Your task to perform on an android device: Go to Amazon Image 0: 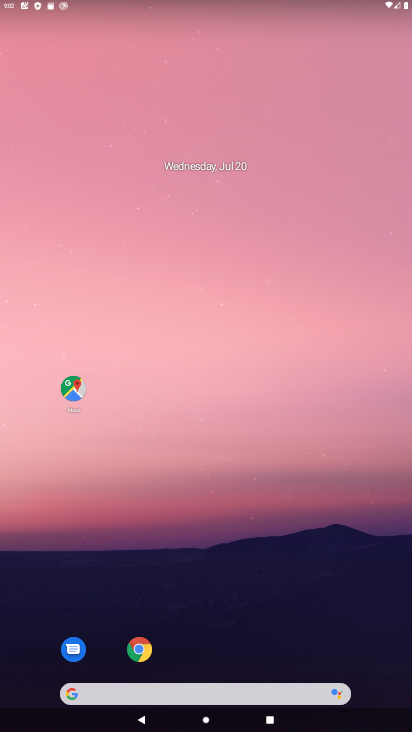
Step 0: drag from (287, 641) to (239, 266)
Your task to perform on an android device: Go to Amazon Image 1: 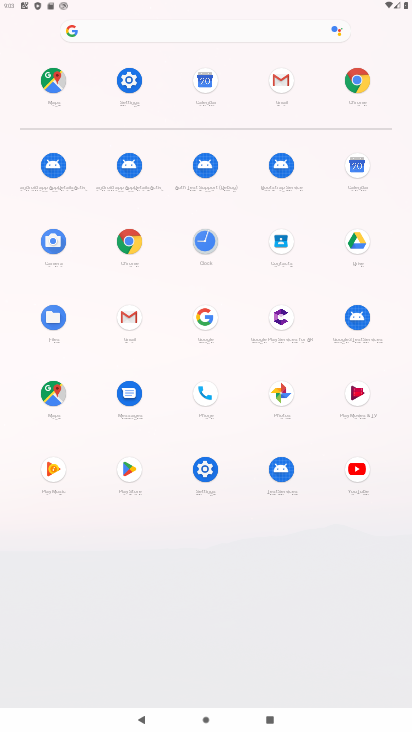
Step 1: click (344, 78)
Your task to perform on an android device: Go to Amazon Image 2: 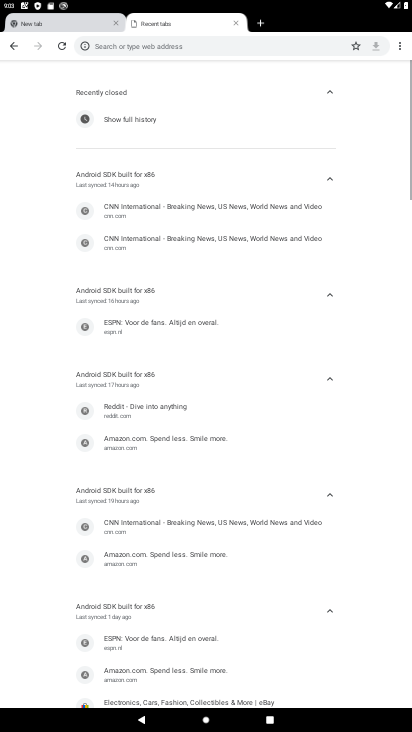
Step 2: click (263, 22)
Your task to perform on an android device: Go to Amazon Image 3: 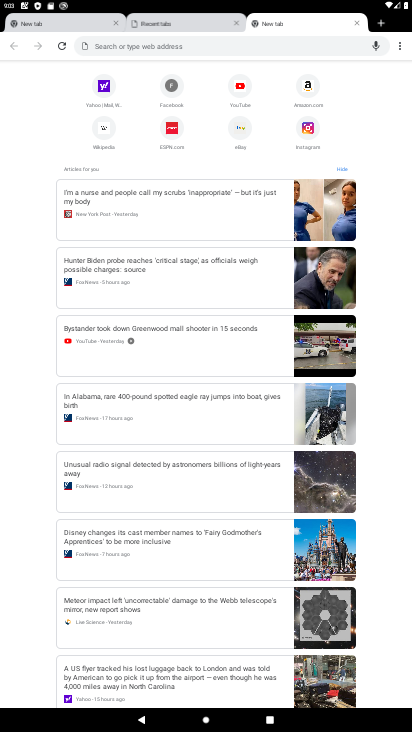
Step 3: type "amazon"
Your task to perform on an android device: Go to Amazon Image 4: 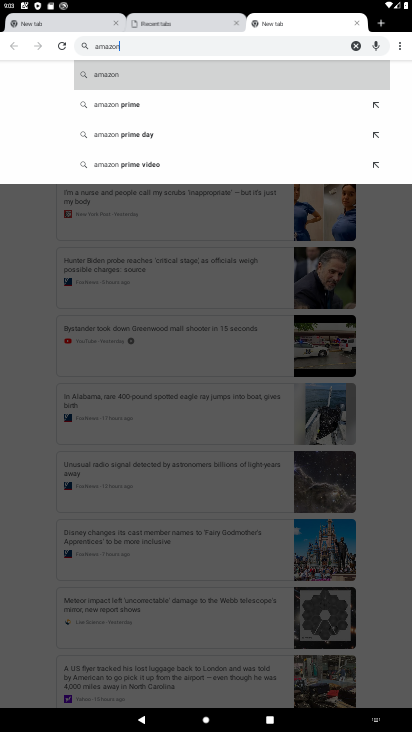
Step 4: click (135, 79)
Your task to perform on an android device: Go to Amazon Image 5: 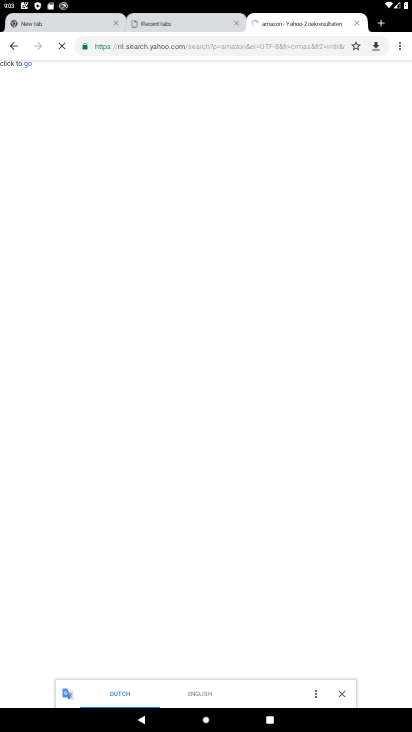
Step 5: task complete